Your task to perform on an android device: Is it going to rain tomorrow? Image 0: 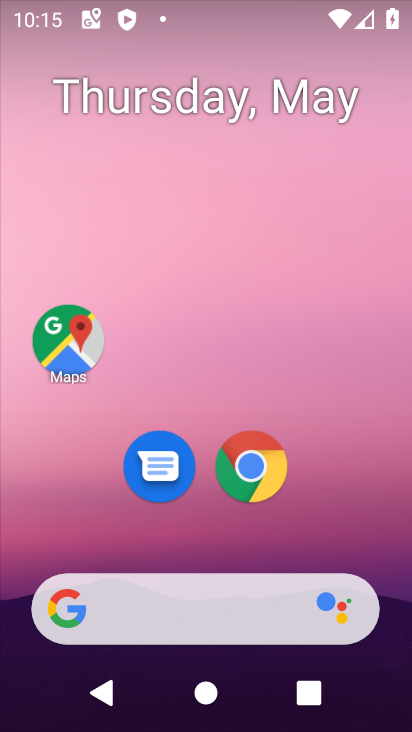
Step 0: click (246, 450)
Your task to perform on an android device: Is it going to rain tomorrow? Image 1: 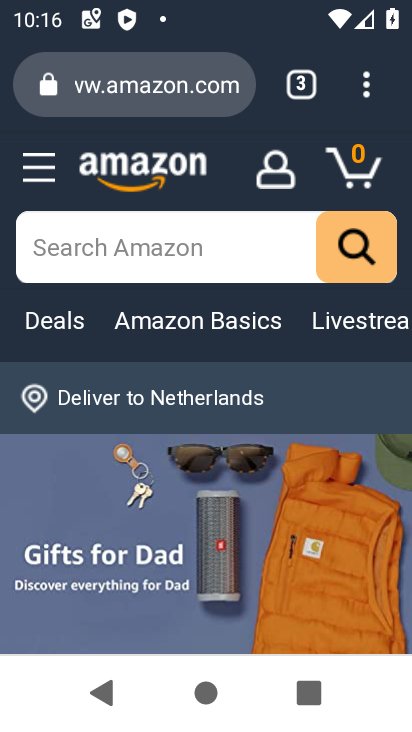
Step 1: click (363, 75)
Your task to perform on an android device: Is it going to rain tomorrow? Image 2: 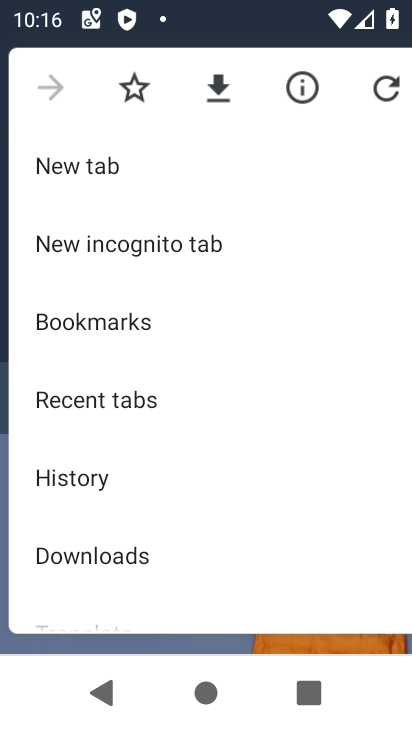
Step 2: click (59, 158)
Your task to perform on an android device: Is it going to rain tomorrow? Image 3: 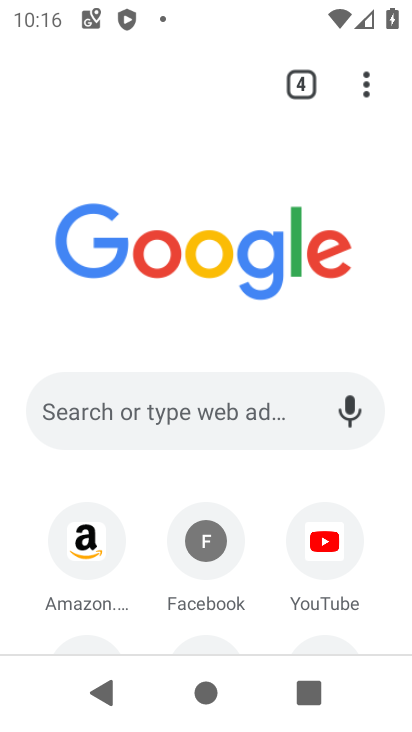
Step 3: click (258, 412)
Your task to perform on an android device: Is it going to rain tomorrow? Image 4: 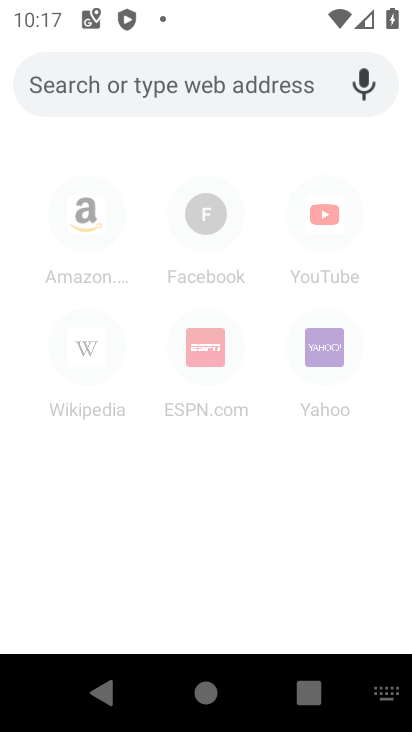
Step 4: type "Is it going to rain tomorrow?"
Your task to perform on an android device: Is it going to rain tomorrow? Image 5: 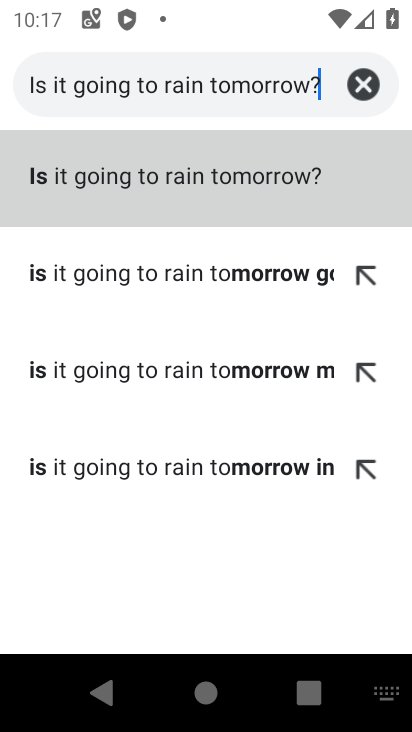
Step 5: click (250, 167)
Your task to perform on an android device: Is it going to rain tomorrow? Image 6: 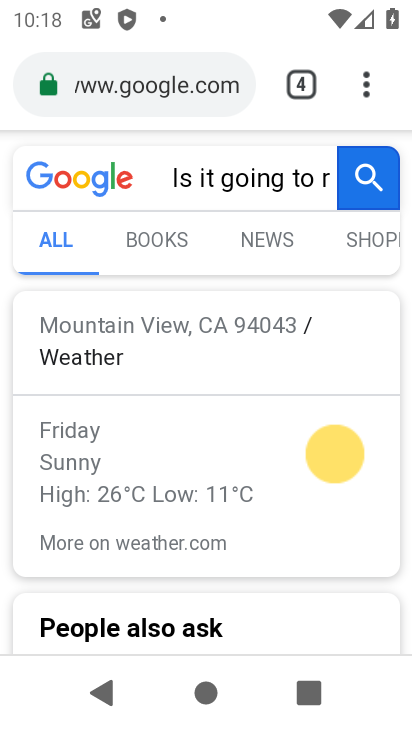
Step 6: task complete